Your task to perform on an android device: Where can I buy a nice beach cooler? Image 0: 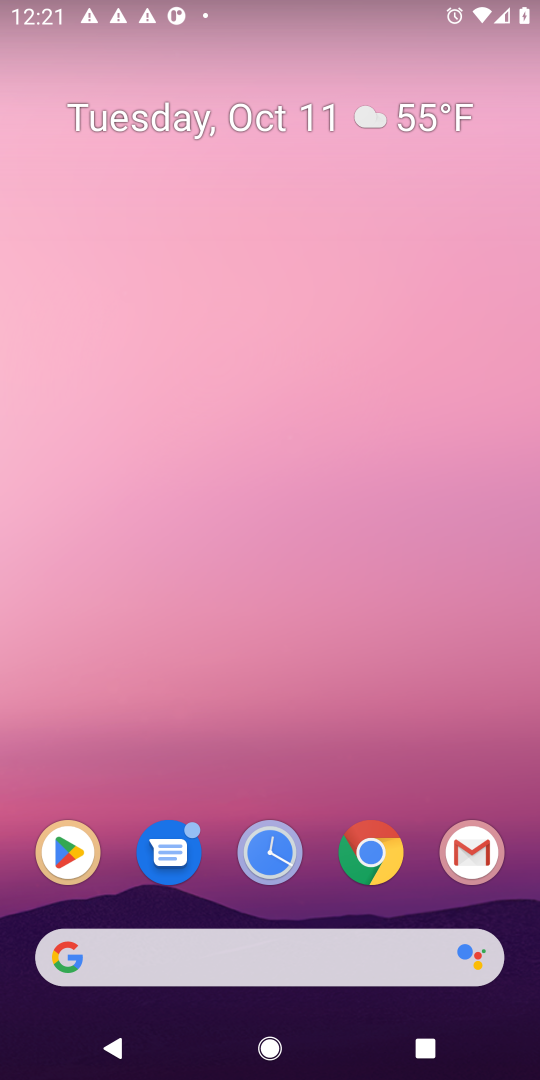
Step 0: click (364, 849)
Your task to perform on an android device: Where can I buy a nice beach cooler? Image 1: 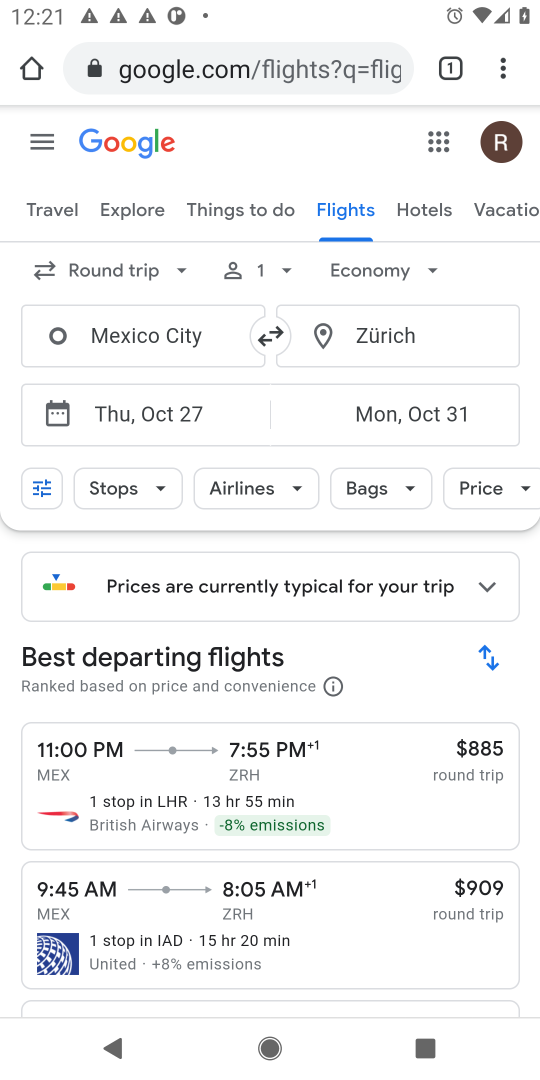
Step 1: click (293, 65)
Your task to perform on an android device: Where can I buy a nice beach cooler? Image 2: 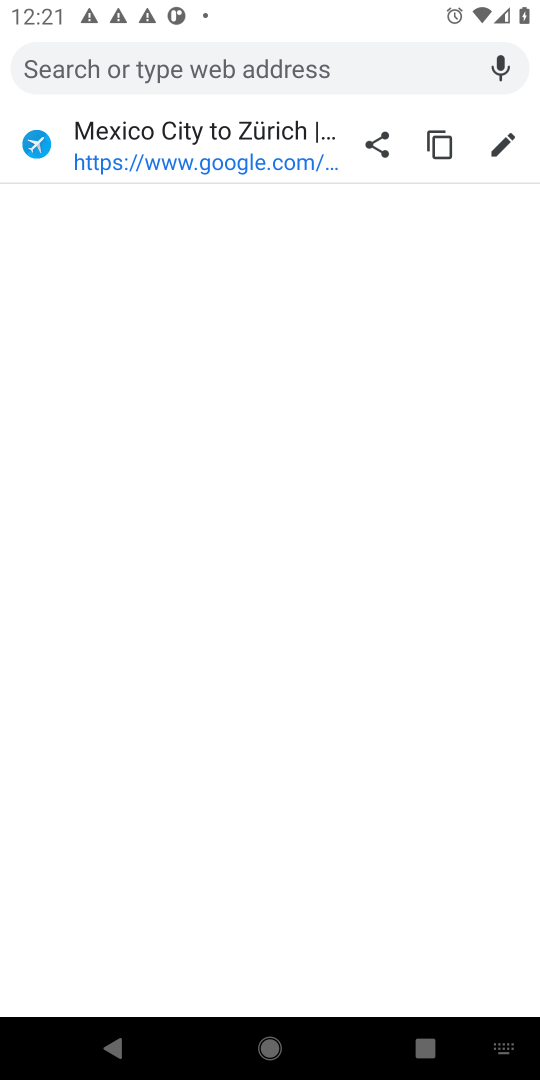
Step 2: type "Where can I buy a nice beach cooler?"
Your task to perform on an android device: Where can I buy a nice beach cooler? Image 3: 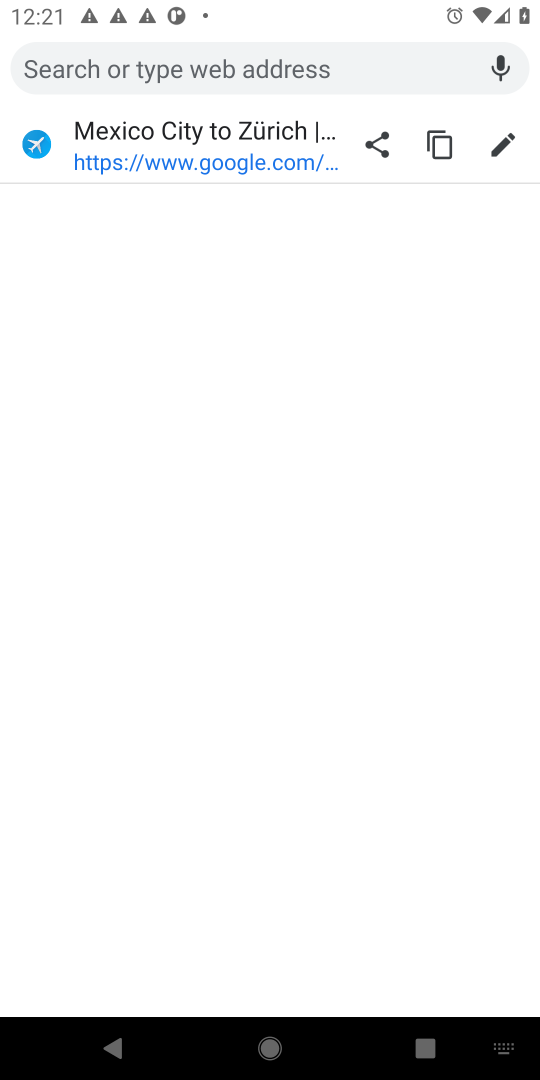
Step 3: click (209, 66)
Your task to perform on an android device: Where can I buy a nice beach cooler? Image 4: 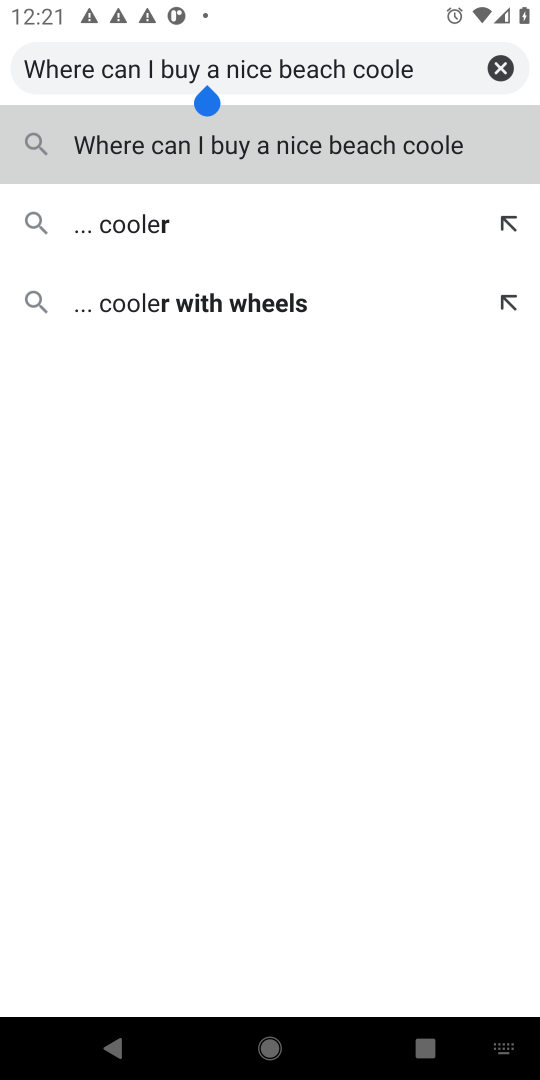
Step 4: click (400, 154)
Your task to perform on an android device: Where can I buy a nice beach cooler? Image 5: 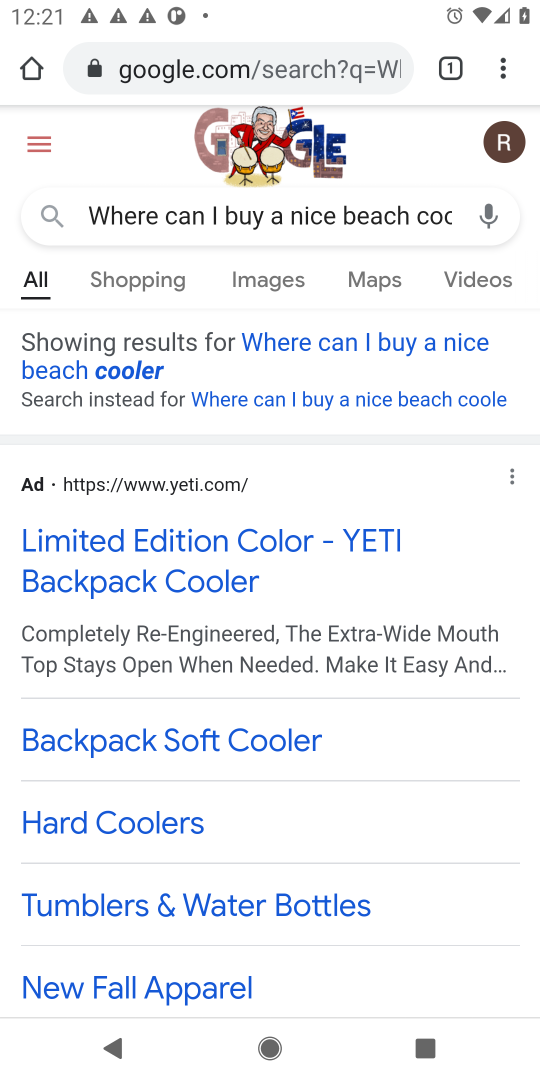
Step 5: click (319, 338)
Your task to perform on an android device: Where can I buy a nice beach cooler? Image 6: 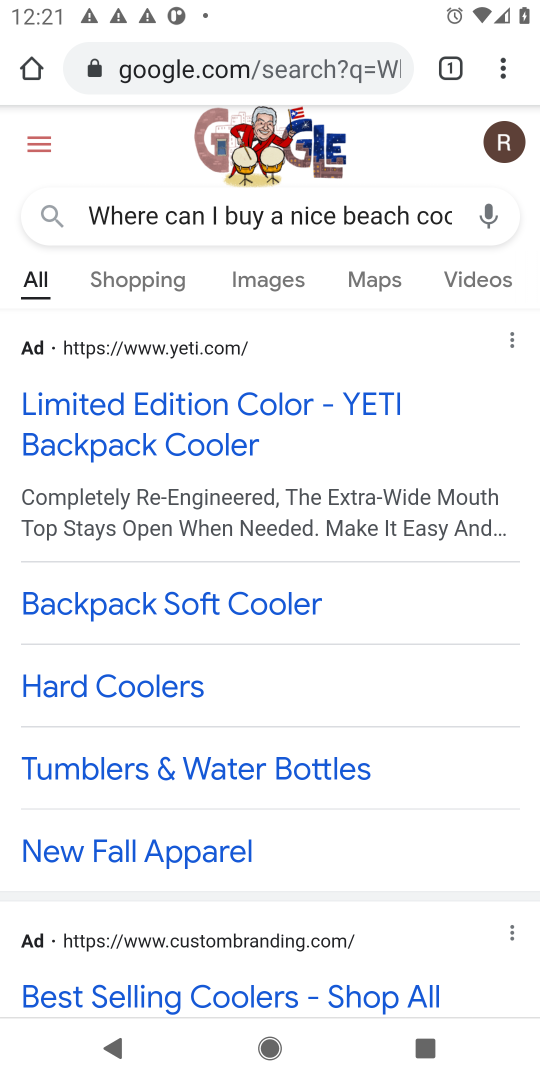
Step 6: click (137, 273)
Your task to perform on an android device: Where can I buy a nice beach cooler? Image 7: 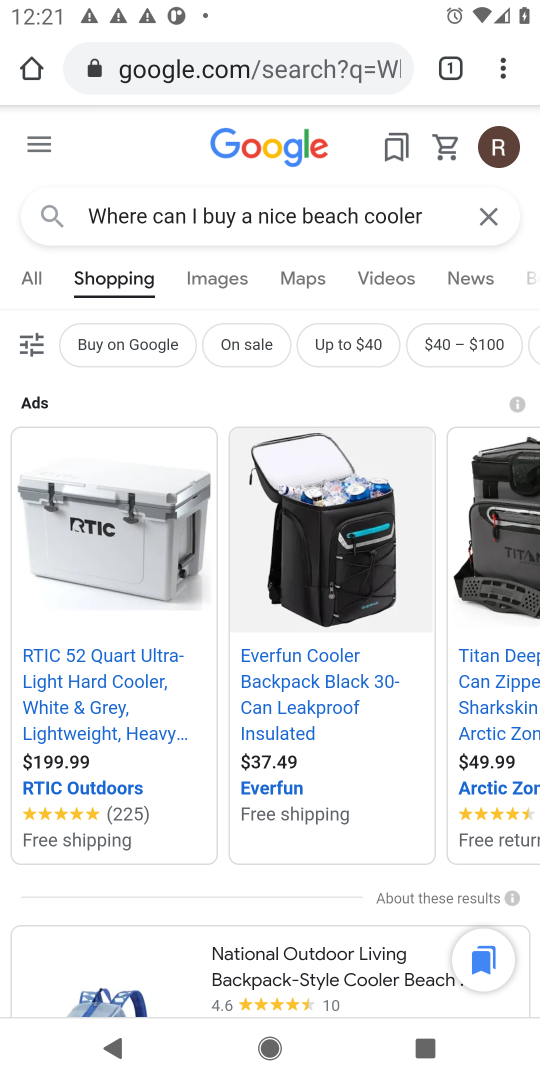
Step 7: task complete